Your task to perform on an android device: turn off translation in the chrome app Image 0: 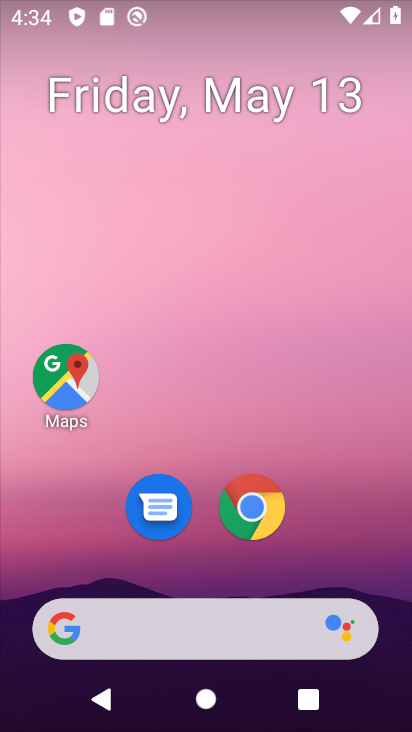
Step 0: click (249, 517)
Your task to perform on an android device: turn off translation in the chrome app Image 1: 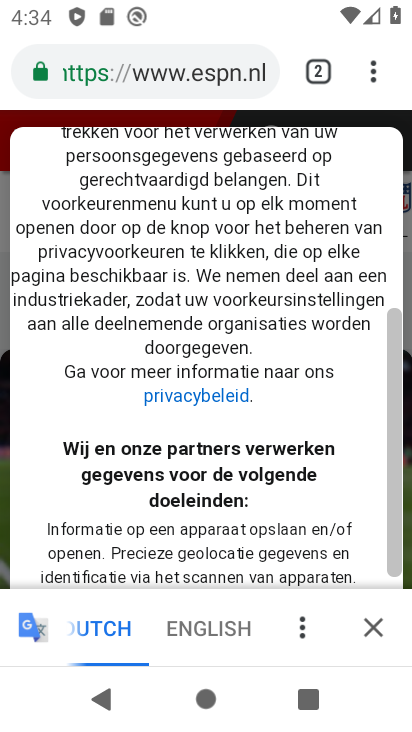
Step 1: click (374, 65)
Your task to perform on an android device: turn off translation in the chrome app Image 2: 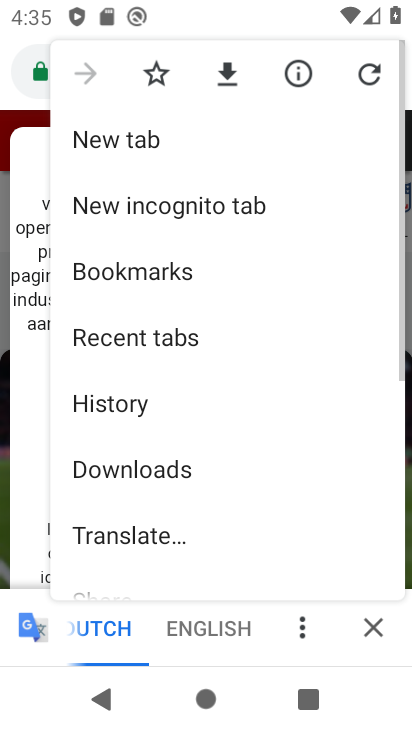
Step 2: drag from (234, 498) to (213, 191)
Your task to perform on an android device: turn off translation in the chrome app Image 3: 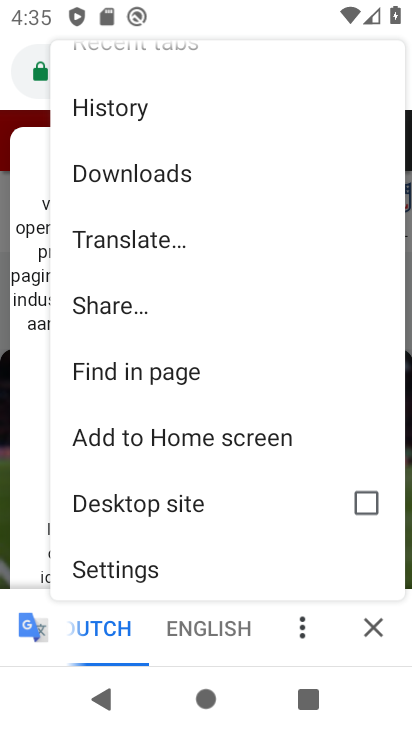
Step 3: drag from (220, 513) to (209, 290)
Your task to perform on an android device: turn off translation in the chrome app Image 4: 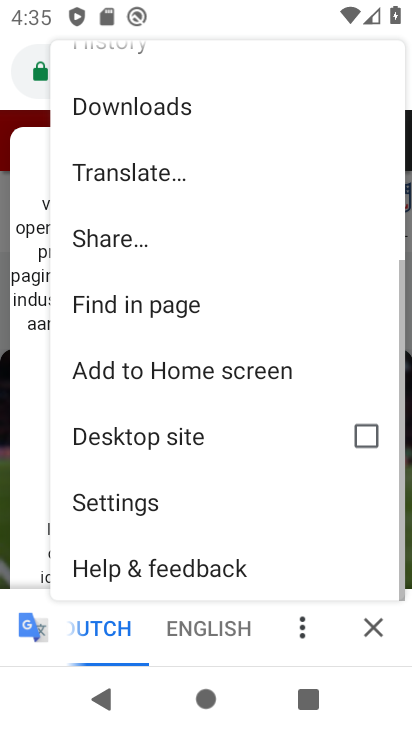
Step 4: click (130, 495)
Your task to perform on an android device: turn off translation in the chrome app Image 5: 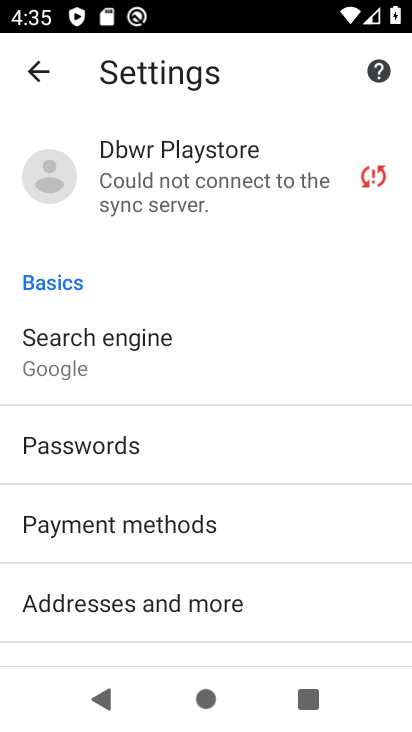
Step 5: drag from (225, 553) to (222, 183)
Your task to perform on an android device: turn off translation in the chrome app Image 6: 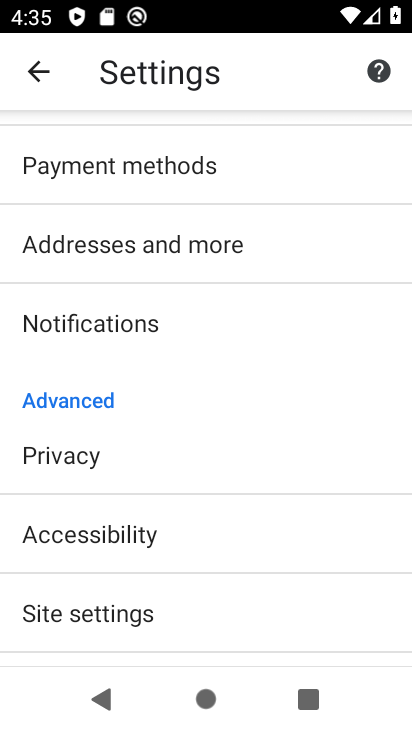
Step 6: drag from (175, 595) to (153, 273)
Your task to perform on an android device: turn off translation in the chrome app Image 7: 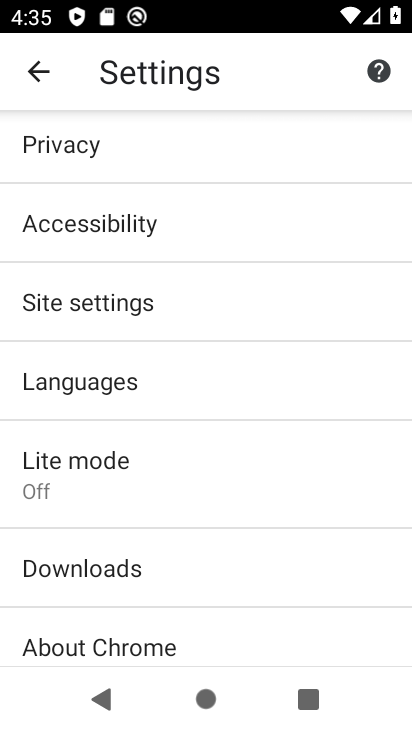
Step 7: click (127, 391)
Your task to perform on an android device: turn off translation in the chrome app Image 8: 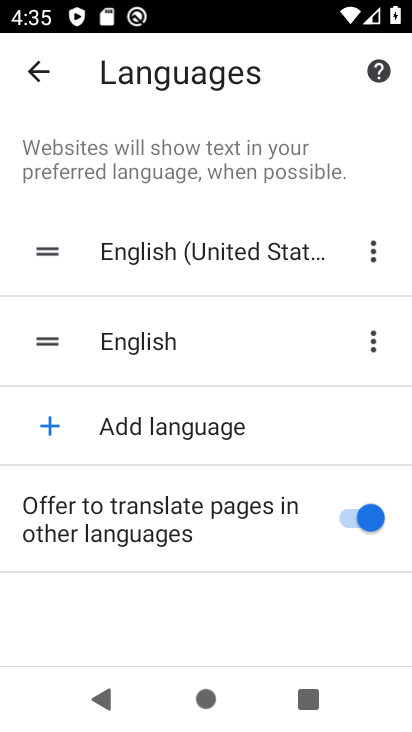
Step 8: click (364, 509)
Your task to perform on an android device: turn off translation in the chrome app Image 9: 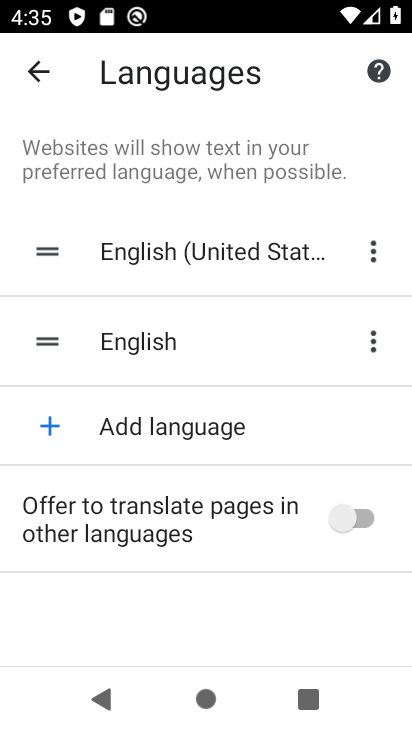
Step 9: task complete